Your task to perform on an android device: change text size in settings app Image 0: 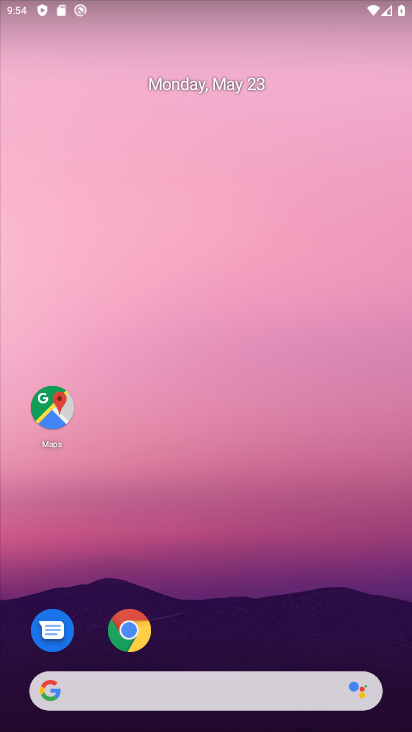
Step 0: drag from (349, 660) to (190, 19)
Your task to perform on an android device: change text size in settings app Image 1: 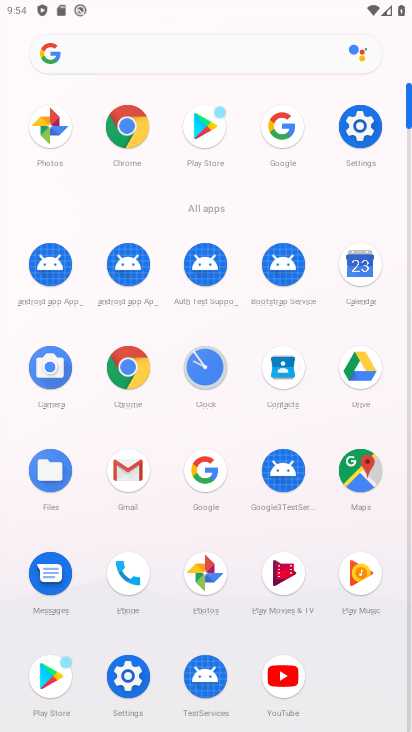
Step 1: click (356, 135)
Your task to perform on an android device: change text size in settings app Image 2: 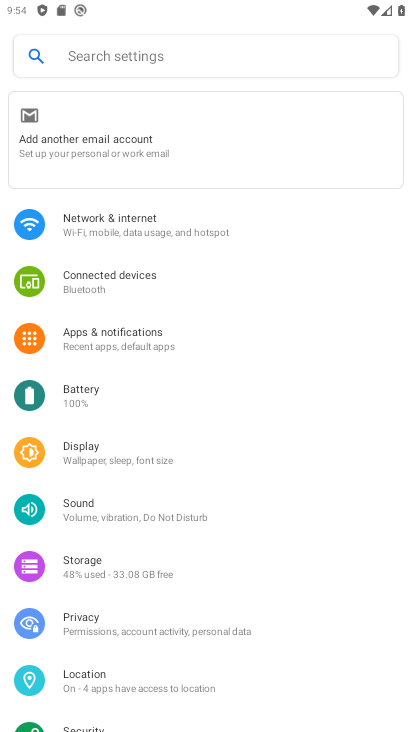
Step 2: click (86, 458)
Your task to perform on an android device: change text size in settings app Image 3: 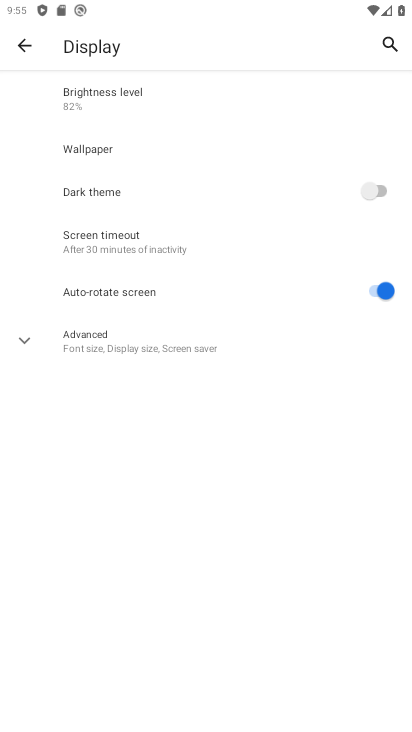
Step 3: click (21, 344)
Your task to perform on an android device: change text size in settings app Image 4: 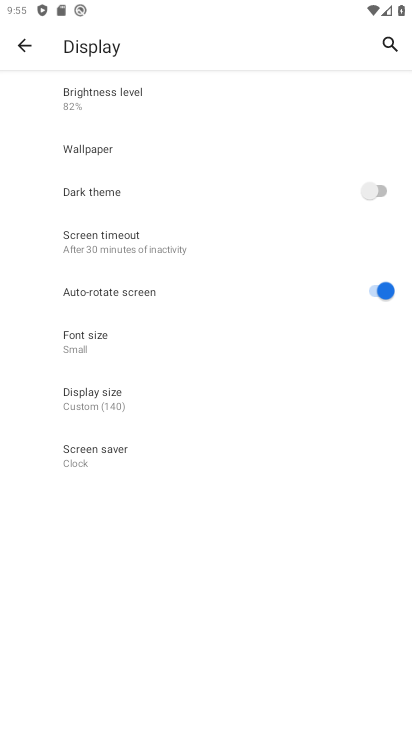
Step 4: click (88, 345)
Your task to perform on an android device: change text size in settings app Image 5: 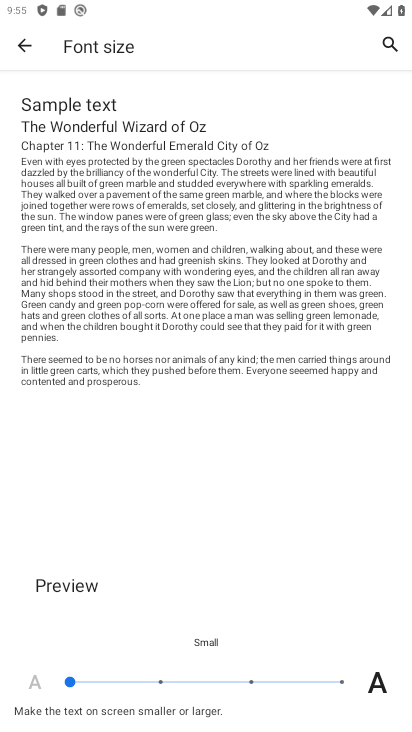
Step 5: drag from (120, 519) to (115, 284)
Your task to perform on an android device: change text size in settings app Image 6: 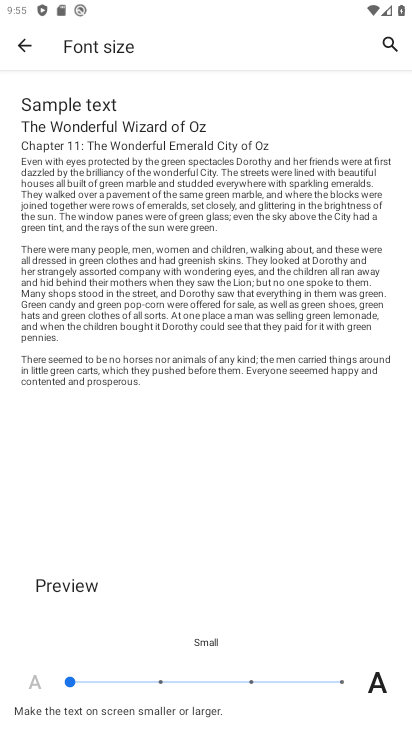
Step 6: click (158, 678)
Your task to perform on an android device: change text size in settings app Image 7: 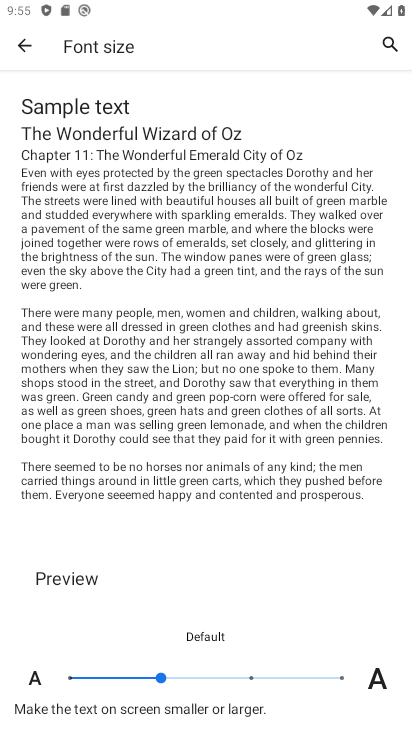
Step 7: task complete